Your task to perform on an android device: toggle sleep mode Image 0: 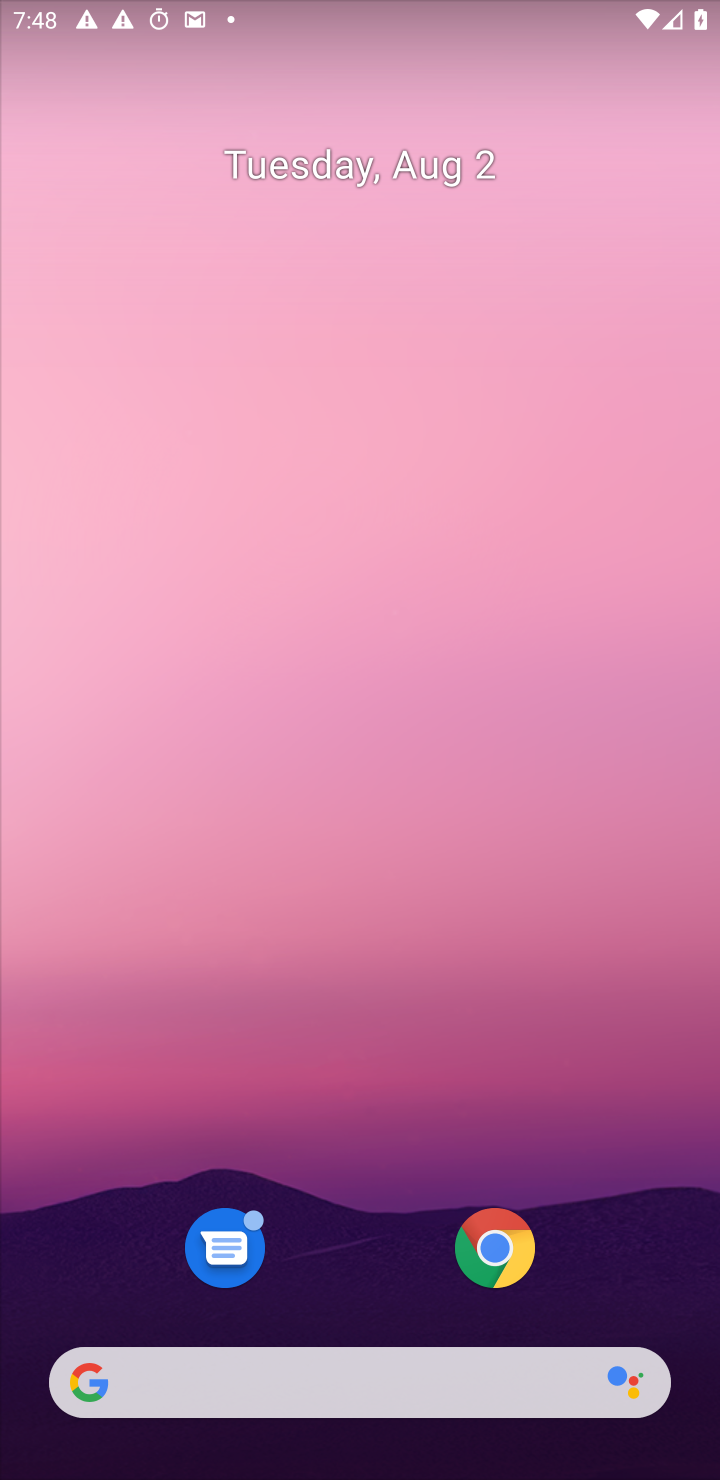
Step 0: drag from (384, 1200) to (474, 426)
Your task to perform on an android device: toggle sleep mode Image 1: 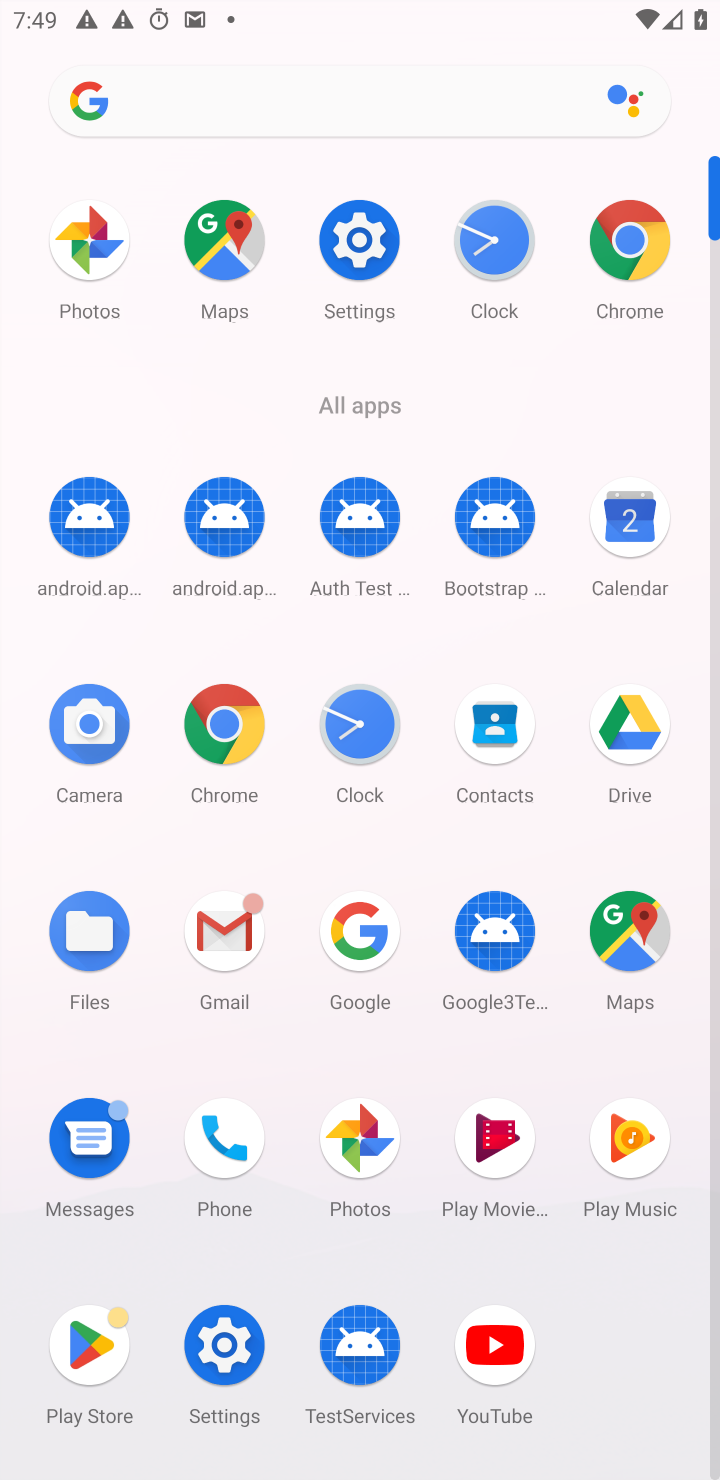
Step 1: click (206, 1365)
Your task to perform on an android device: toggle sleep mode Image 2: 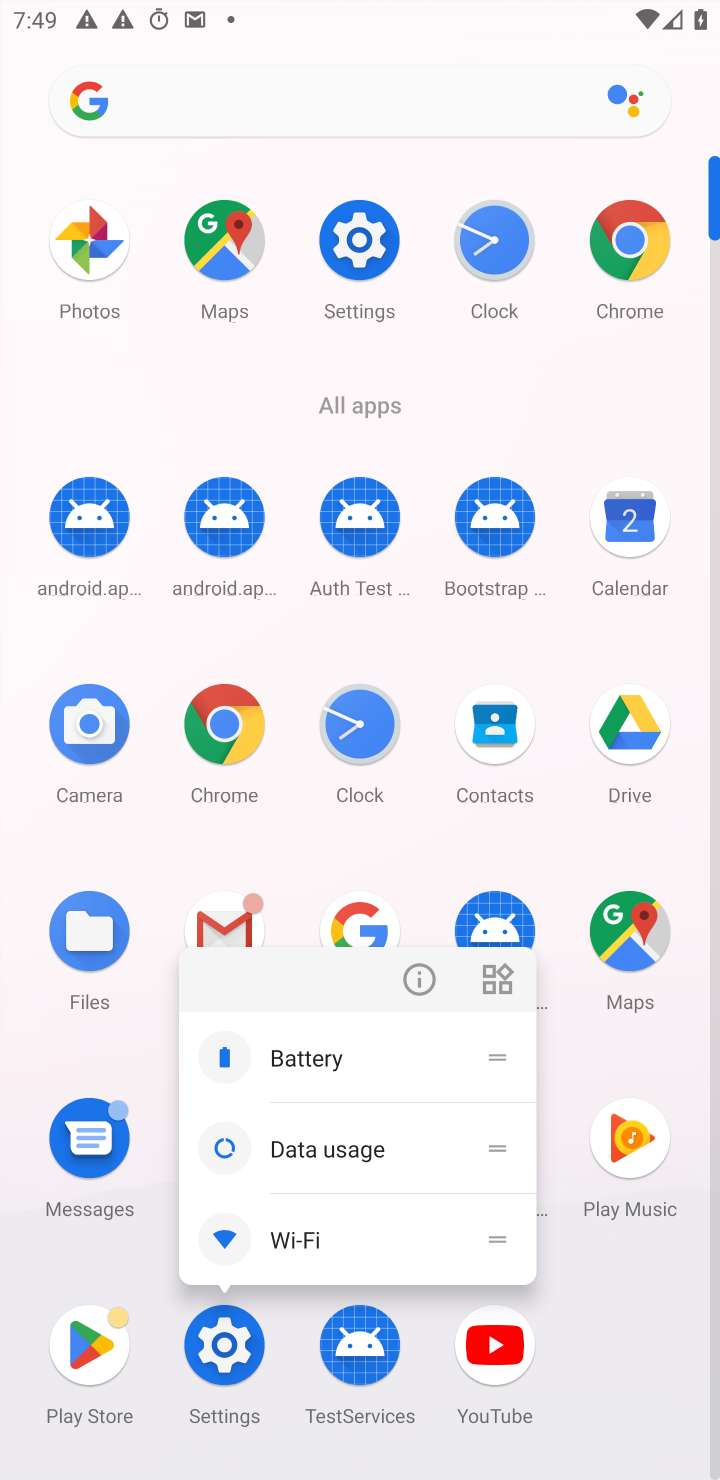
Step 2: click (437, 983)
Your task to perform on an android device: toggle sleep mode Image 3: 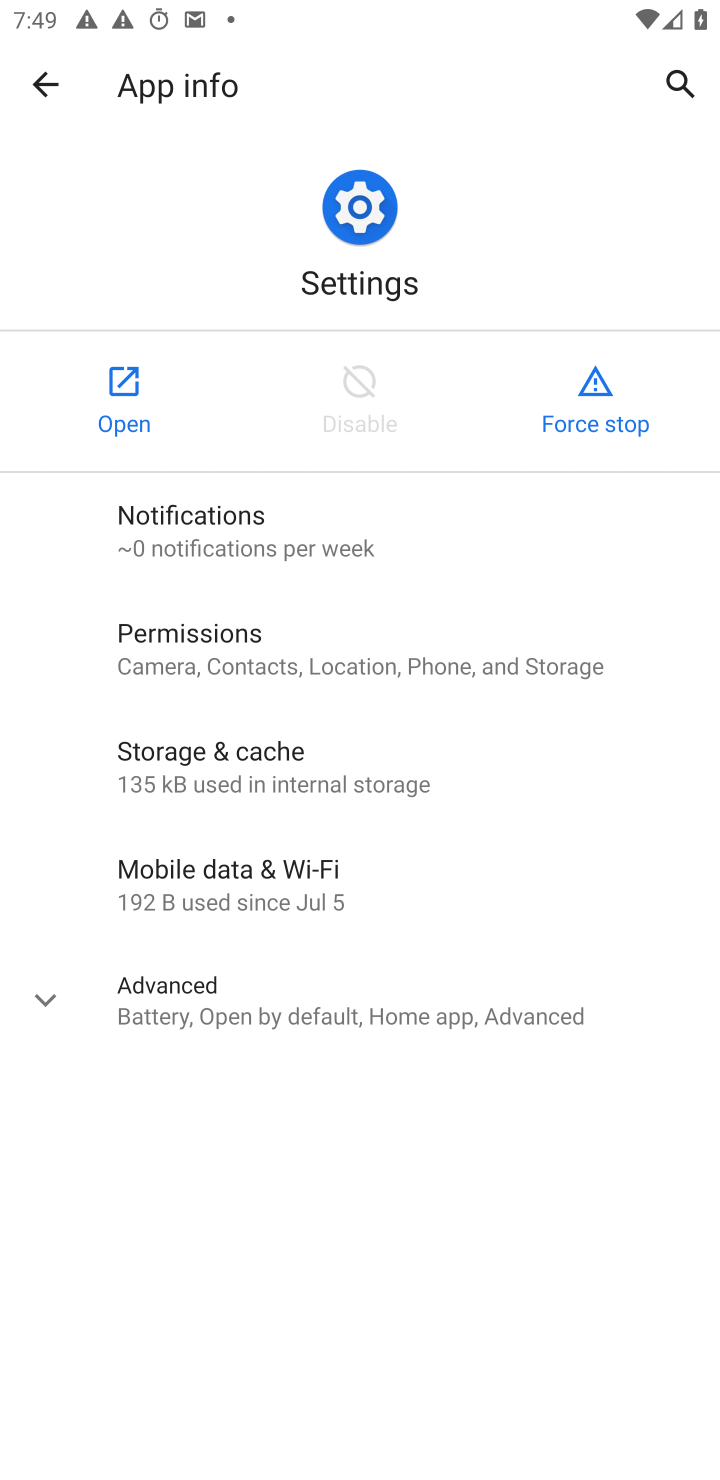
Step 3: click (136, 405)
Your task to perform on an android device: toggle sleep mode Image 4: 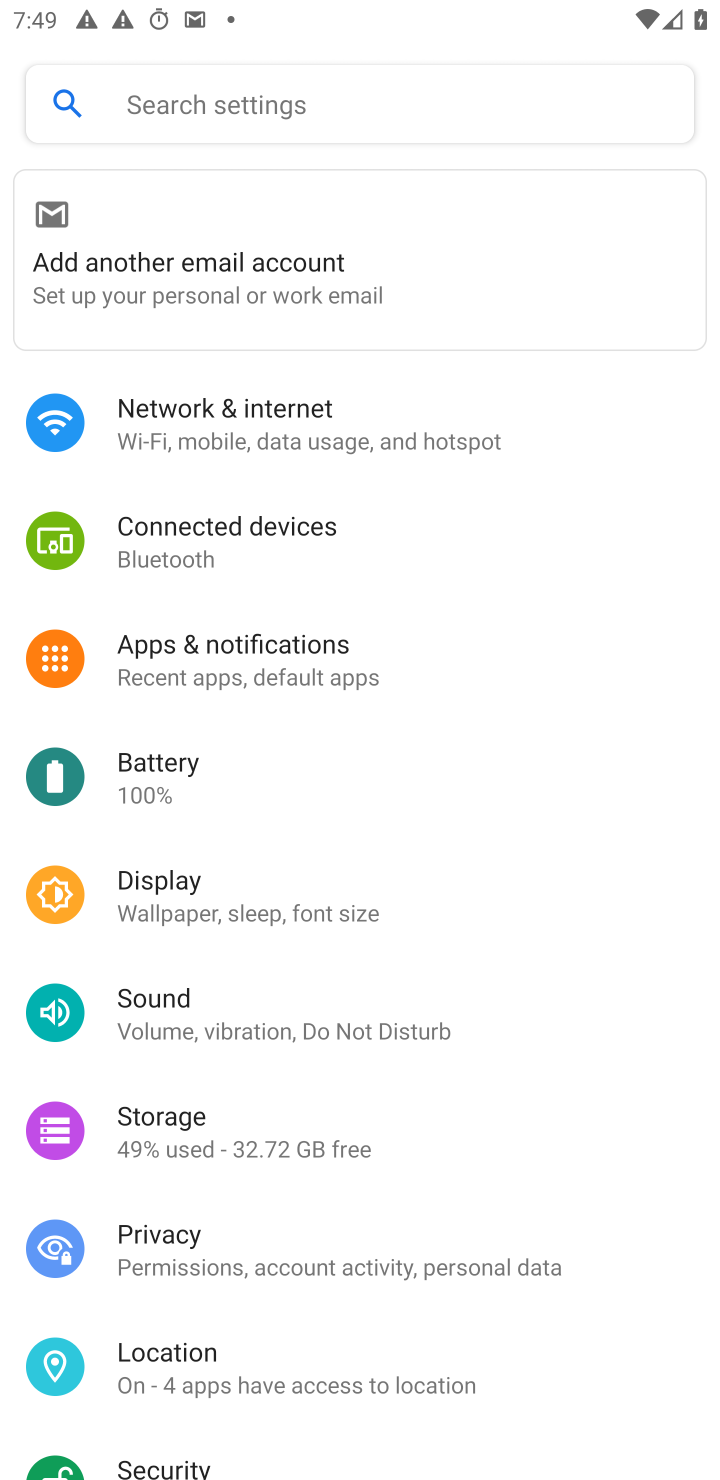
Step 4: click (215, 872)
Your task to perform on an android device: toggle sleep mode Image 5: 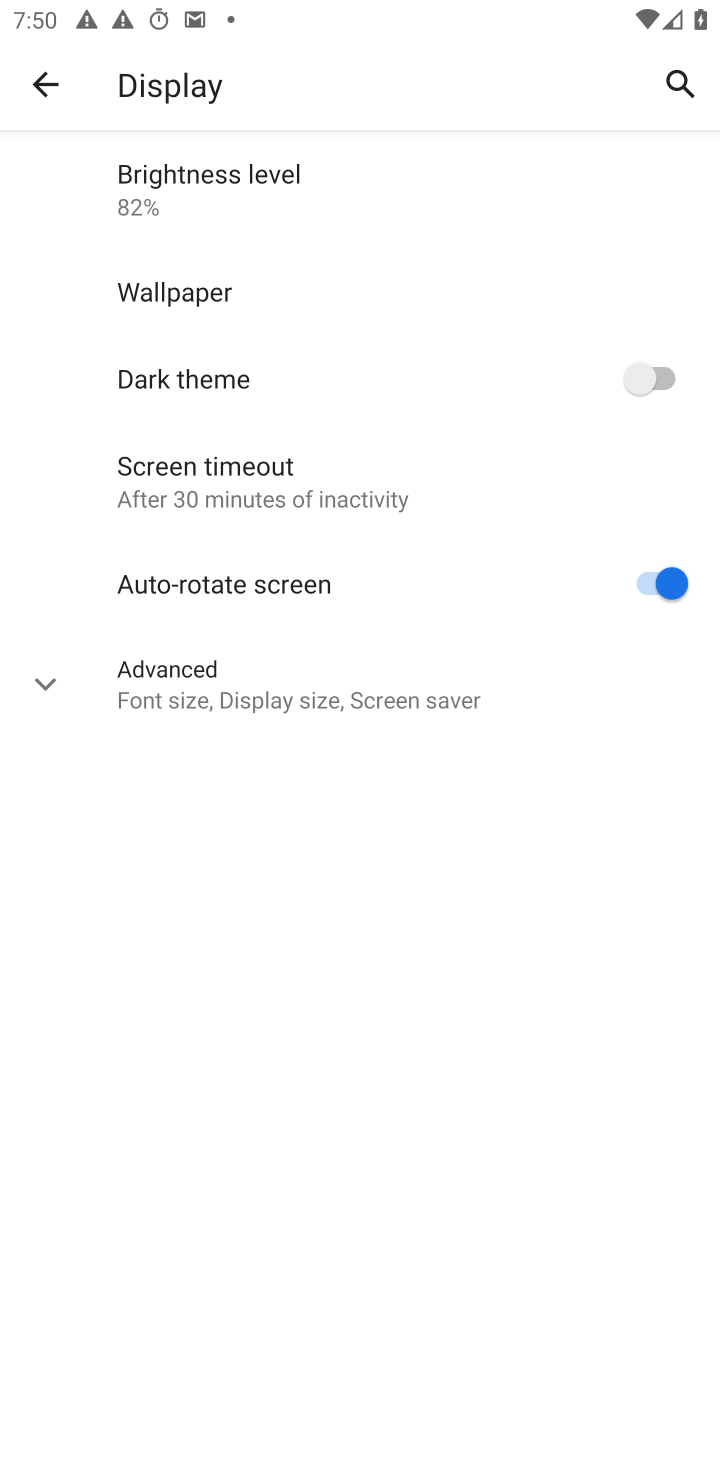
Step 5: click (297, 478)
Your task to perform on an android device: toggle sleep mode Image 6: 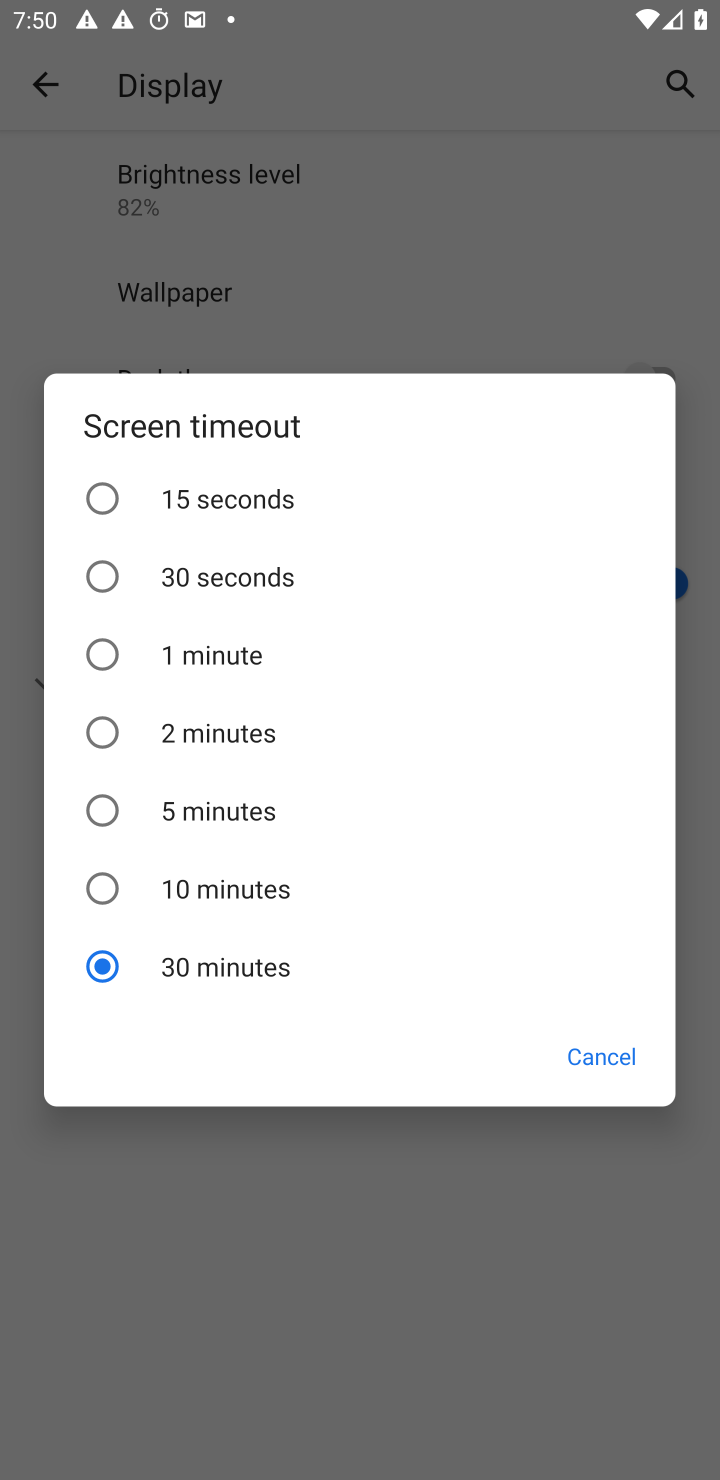
Step 6: task complete